Your task to perform on an android device: find snoozed emails in the gmail app Image 0: 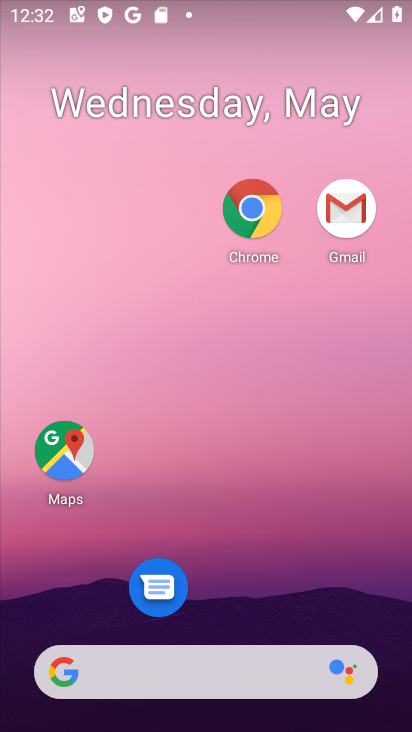
Step 0: drag from (269, 618) to (241, 0)
Your task to perform on an android device: find snoozed emails in the gmail app Image 1: 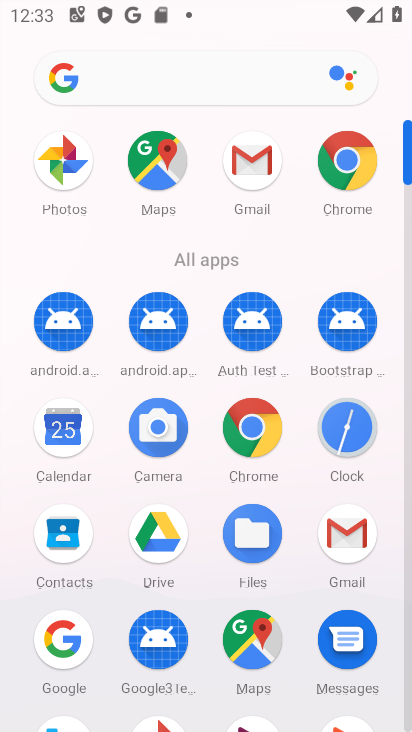
Step 1: click (247, 171)
Your task to perform on an android device: find snoozed emails in the gmail app Image 2: 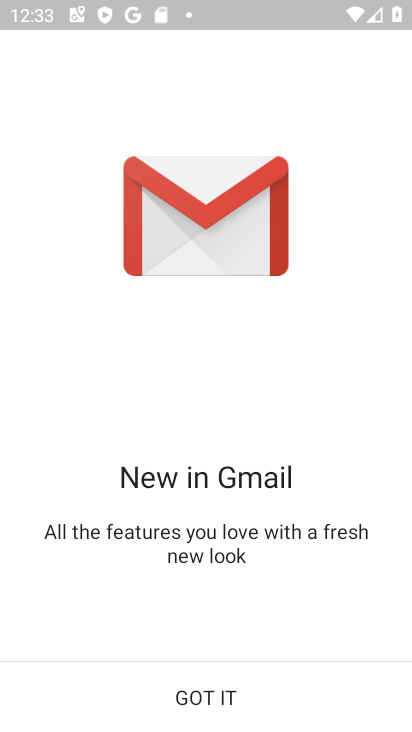
Step 2: click (179, 683)
Your task to perform on an android device: find snoozed emails in the gmail app Image 3: 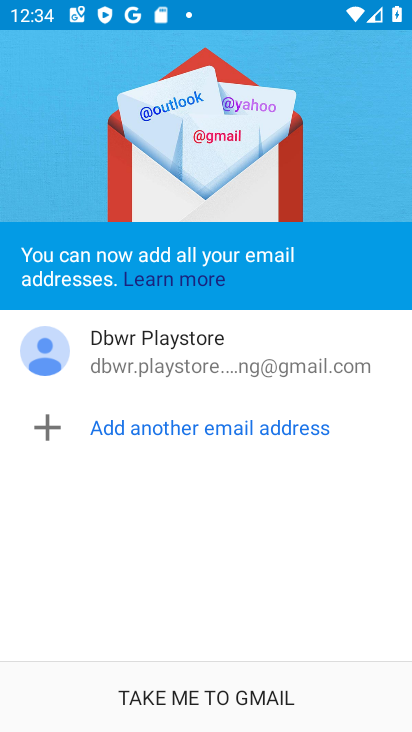
Step 3: click (124, 703)
Your task to perform on an android device: find snoozed emails in the gmail app Image 4: 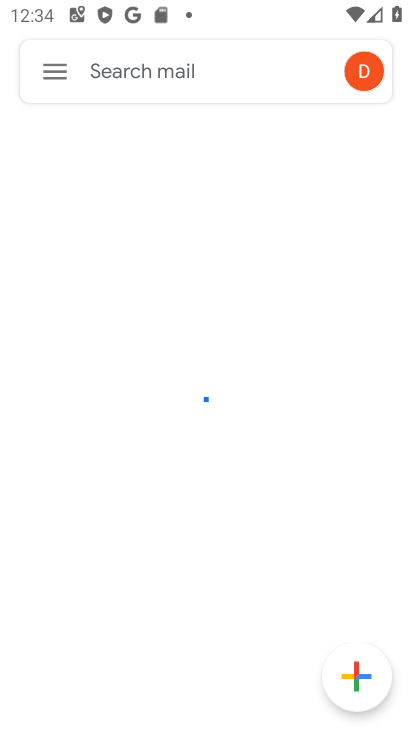
Step 4: click (56, 68)
Your task to perform on an android device: find snoozed emails in the gmail app Image 5: 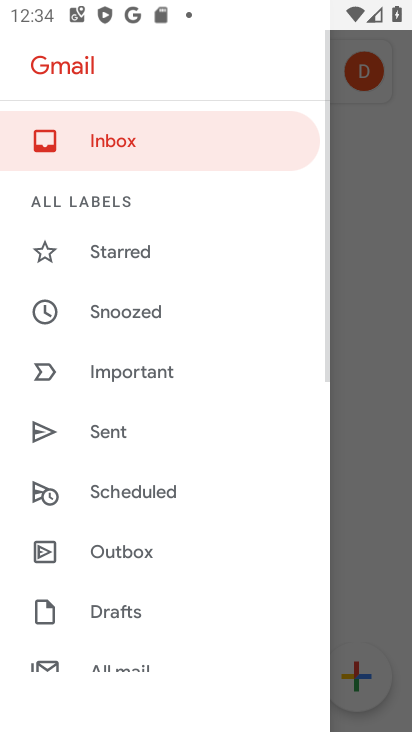
Step 5: click (98, 302)
Your task to perform on an android device: find snoozed emails in the gmail app Image 6: 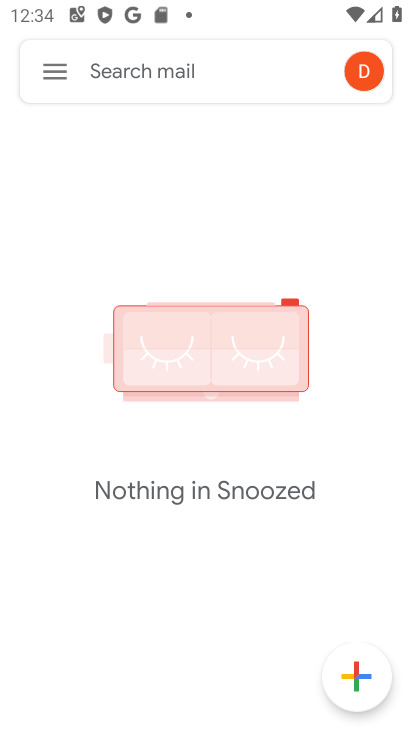
Step 6: task complete